Your task to perform on an android device: Open Youtube and go to "Your channel" Image 0: 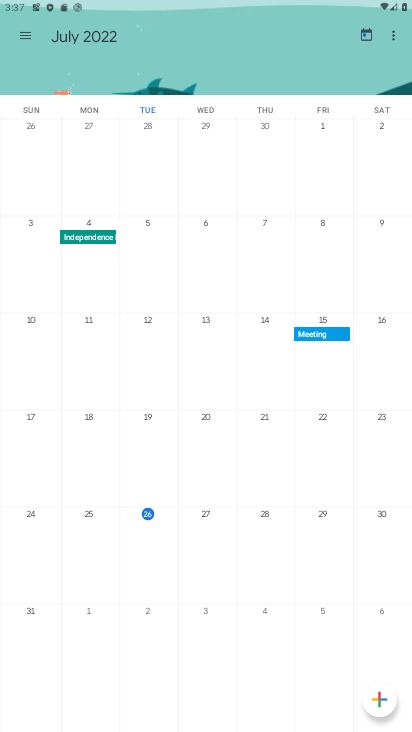
Step 0: press home button
Your task to perform on an android device: Open Youtube and go to "Your channel" Image 1: 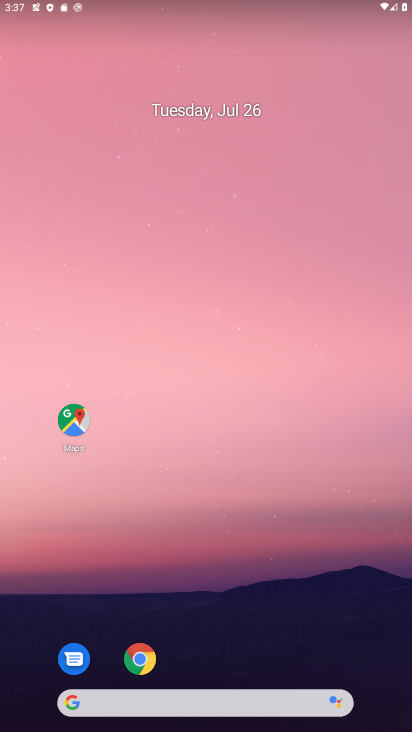
Step 1: drag from (257, 625) to (234, 17)
Your task to perform on an android device: Open Youtube and go to "Your channel" Image 2: 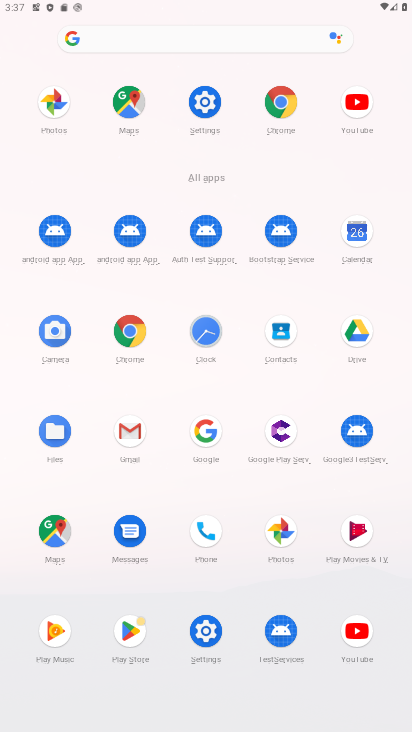
Step 2: click (355, 97)
Your task to perform on an android device: Open Youtube and go to "Your channel" Image 3: 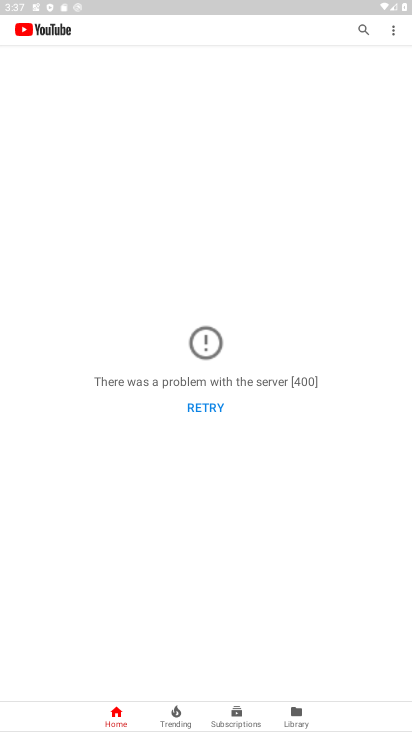
Step 3: click (215, 404)
Your task to perform on an android device: Open Youtube and go to "Your channel" Image 4: 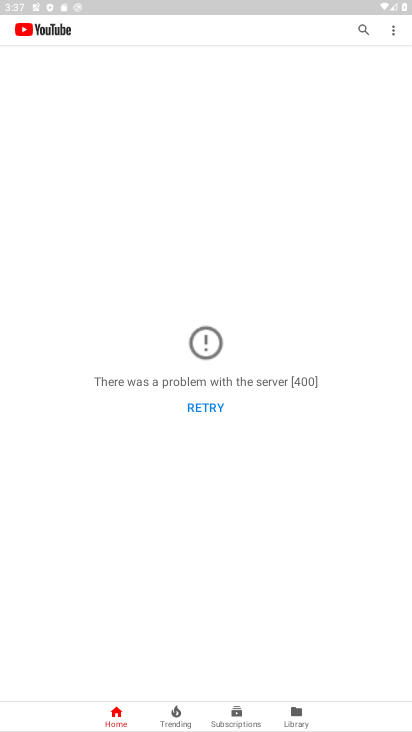
Step 4: click (215, 404)
Your task to perform on an android device: Open Youtube and go to "Your channel" Image 5: 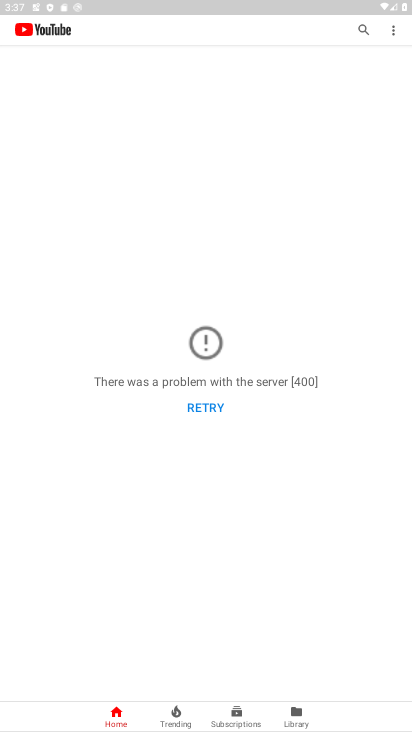
Step 5: task complete